Your task to perform on an android device: Look up the best rated headphones on Aliexpress Image 0: 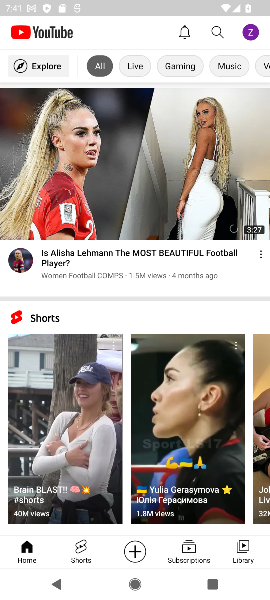
Step 0: press home button
Your task to perform on an android device: Look up the best rated headphones on Aliexpress Image 1: 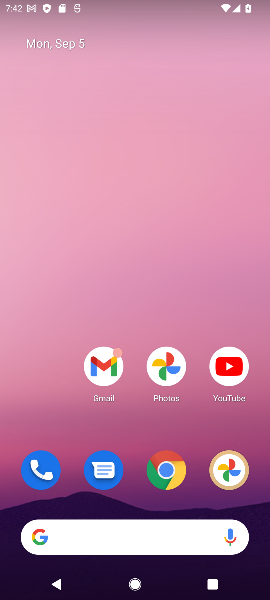
Step 1: drag from (110, 494) to (102, 86)
Your task to perform on an android device: Look up the best rated headphones on Aliexpress Image 2: 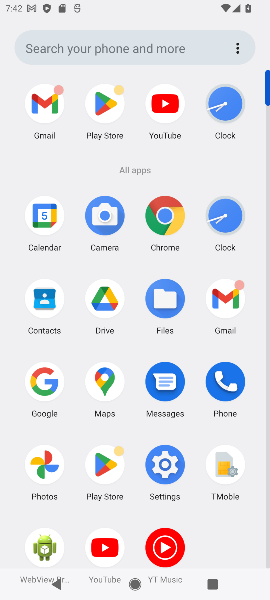
Step 2: click (165, 225)
Your task to perform on an android device: Look up the best rated headphones on Aliexpress Image 3: 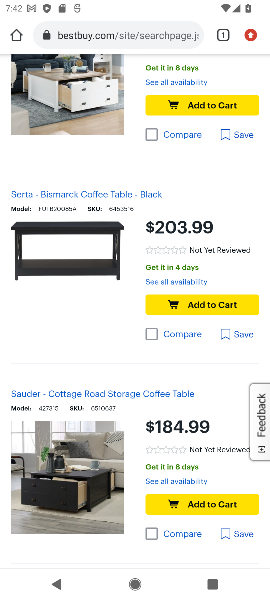
Step 3: click (147, 43)
Your task to perform on an android device: Look up the best rated headphones on Aliexpress Image 4: 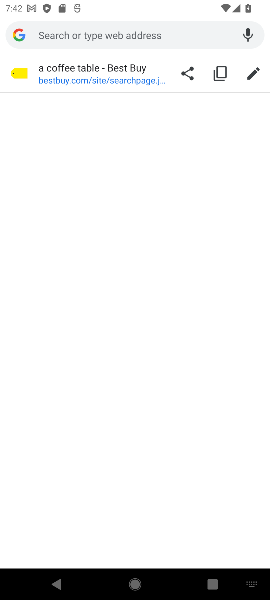
Step 4: type "Aliexpress"
Your task to perform on an android device: Look up the best rated headphones on Aliexpress Image 5: 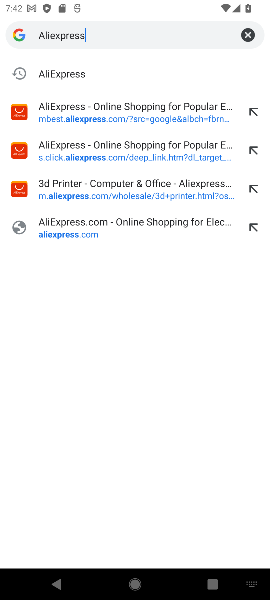
Step 5: click (35, 101)
Your task to perform on an android device: Look up the best rated headphones on Aliexpress Image 6: 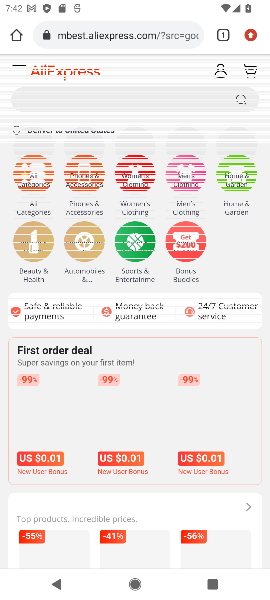
Step 6: click (49, 93)
Your task to perform on an android device: Look up the best rated headphones on Aliexpress Image 7: 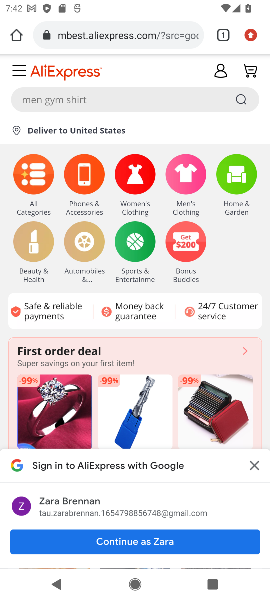
Step 7: click (70, 98)
Your task to perform on an android device: Look up the best rated headphones on Aliexpress Image 8: 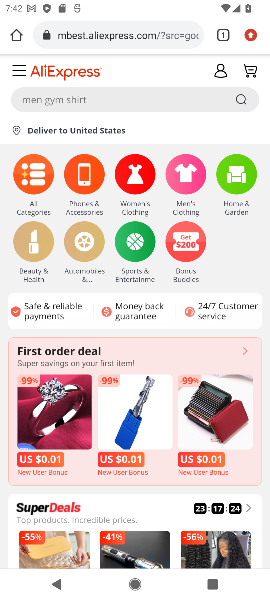
Step 8: click (119, 96)
Your task to perform on an android device: Look up the best rated headphones on Aliexpress Image 9: 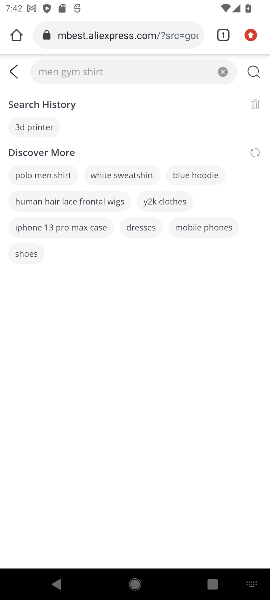
Step 9: click (119, 96)
Your task to perform on an android device: Look up the best rated headphones on Aliexpress Image 10: 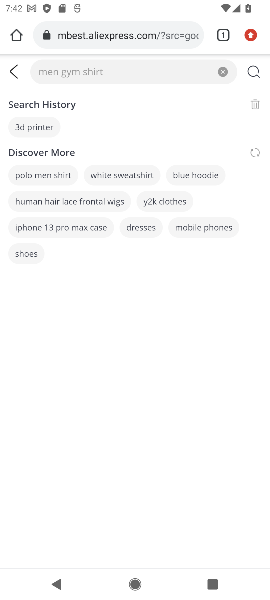
Step 10: click (133, 71)
Your task to perform on an android device: Look up the best rated headphones on Aliexpress Image 11: 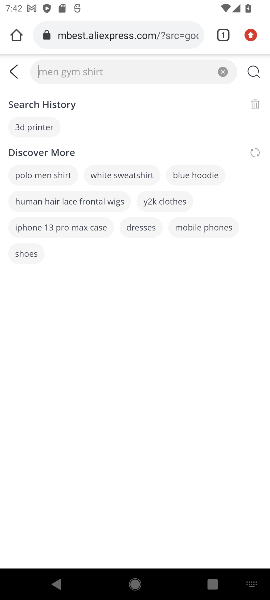
Step 11: type "the best rated headphones"
Your task to perform on an android device: Look up the best rated headphones on Aliexpress Image 12: 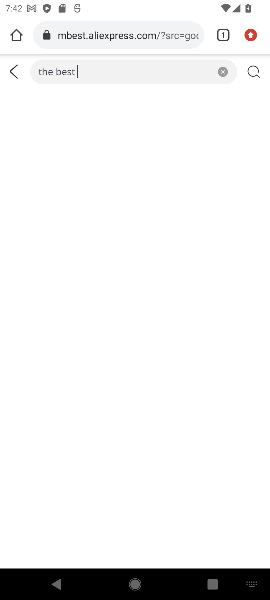
Step 12: type ""
Your task to perform on an android device: Look up the best rated headphones on Aliexpress Image 13: 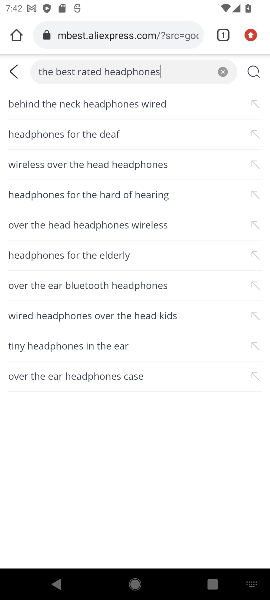
Step 13: click (254, 63)
Your task to perform on an android device: Look up the best rated headphones on Aliexpress Image 14: 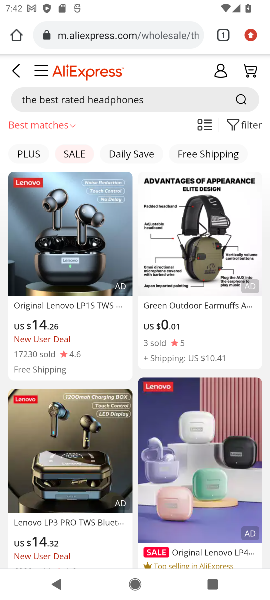
Step 14: task complete